Your task to perform on an android device: toggle airplane mode Image 0: 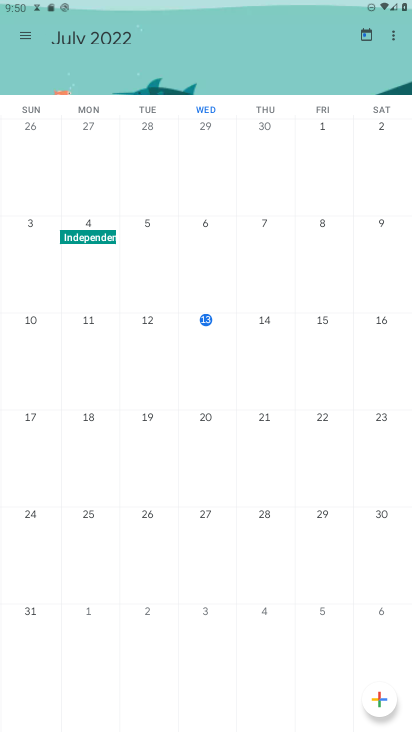
Step 0: press home button
Your task to perform on an android device: toggle airplane mode Image 1: 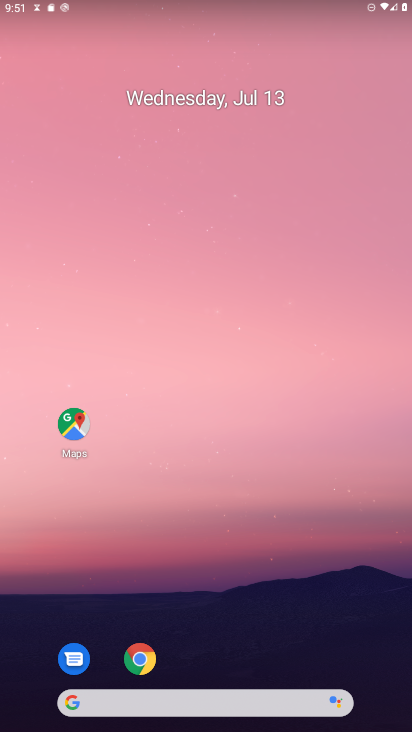
Step 1: drag from (209, 696) to (267, 234)
Your task to perform on an android device: toggle airplane mode Image 2: 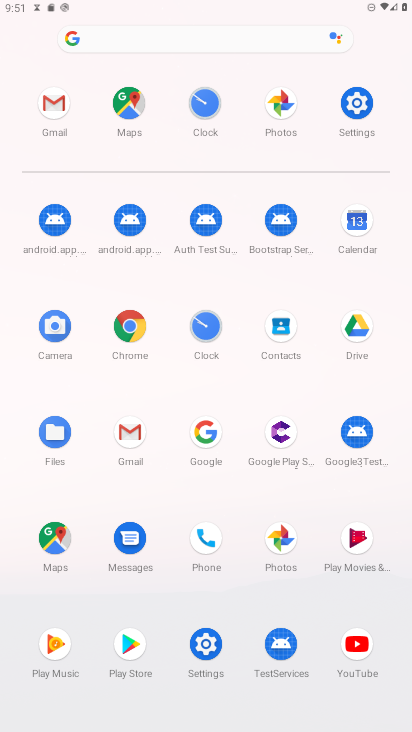
Step 2: click (353, 129)
Your task to perform on an android device: toggle airplane mode Image 3: 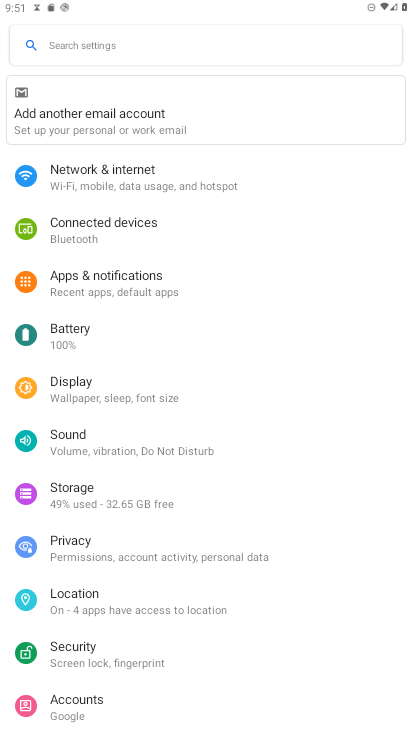
Step 3: click (127, 186)
Your task to perform on an android device: toggle airplane mode Image 4: 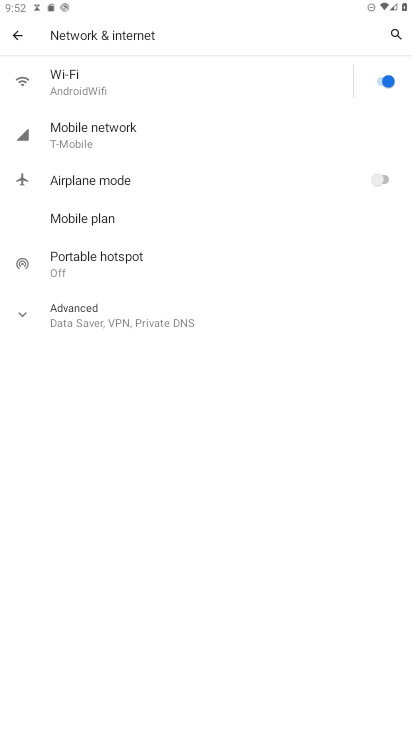
Step 4: click (388, 178)
Your task to perform on an android device: toggle airplane mode Image 5: 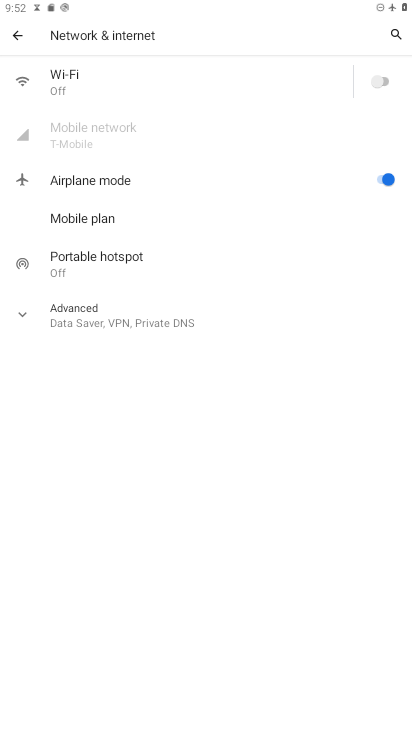
Step 5: task complete